Your task to perform on an android device: Open wifi settings Image 0: 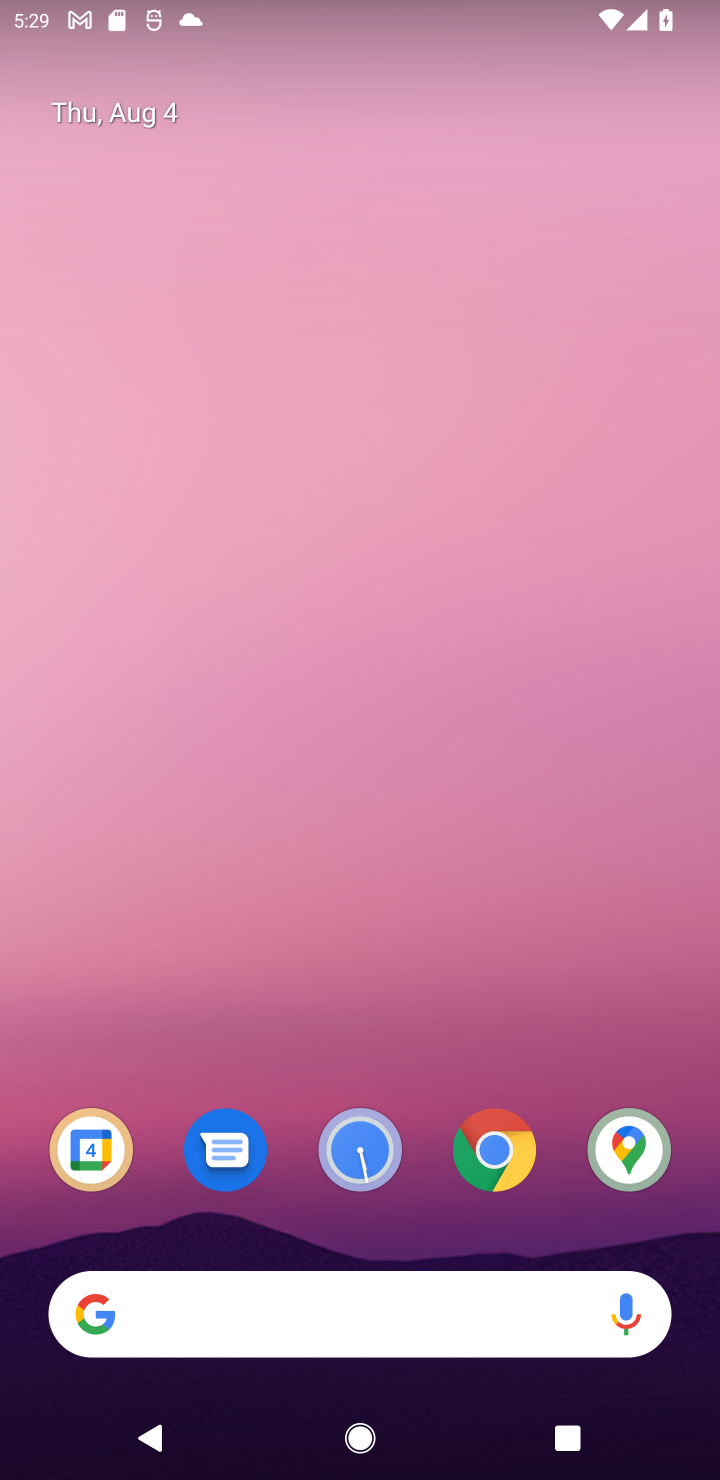
Step 0: drag from (329, 1135) to (283, 79)
Your task to perform on an android device: Open wifi settings Image 1: 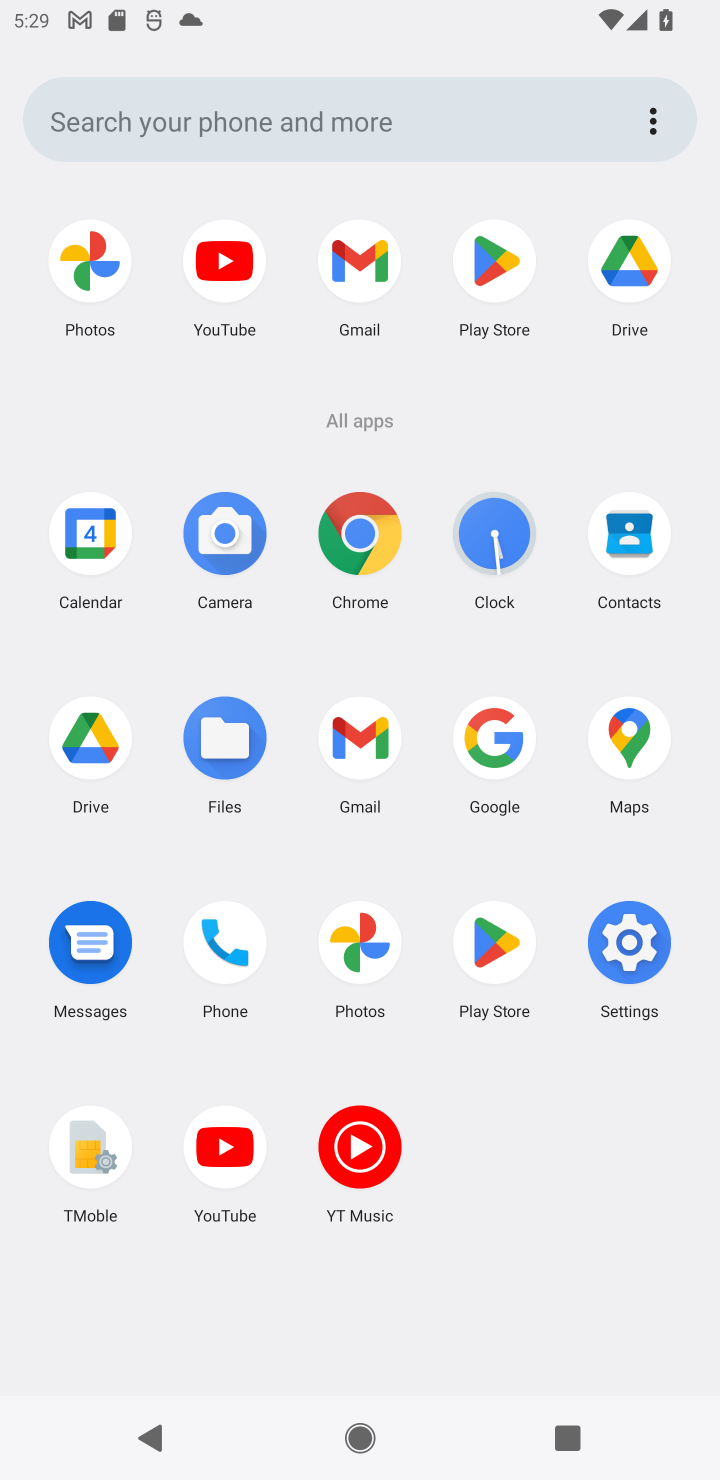
Step 1: click (618, 968)
Your task to perform on an android device: Open wifi settings Image 2: 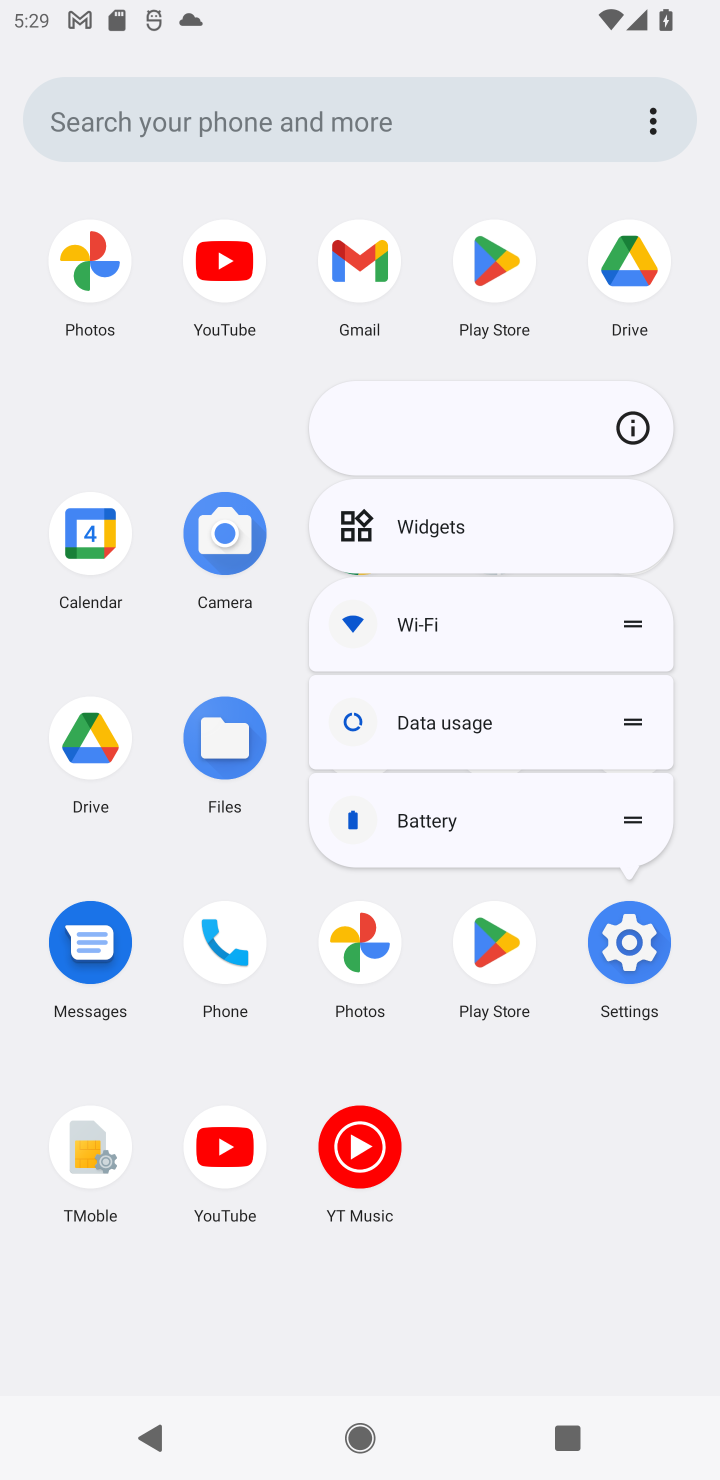
Step 2: click (629, 951)
Your task to perform on an android device: Open wifi settings Image 3: 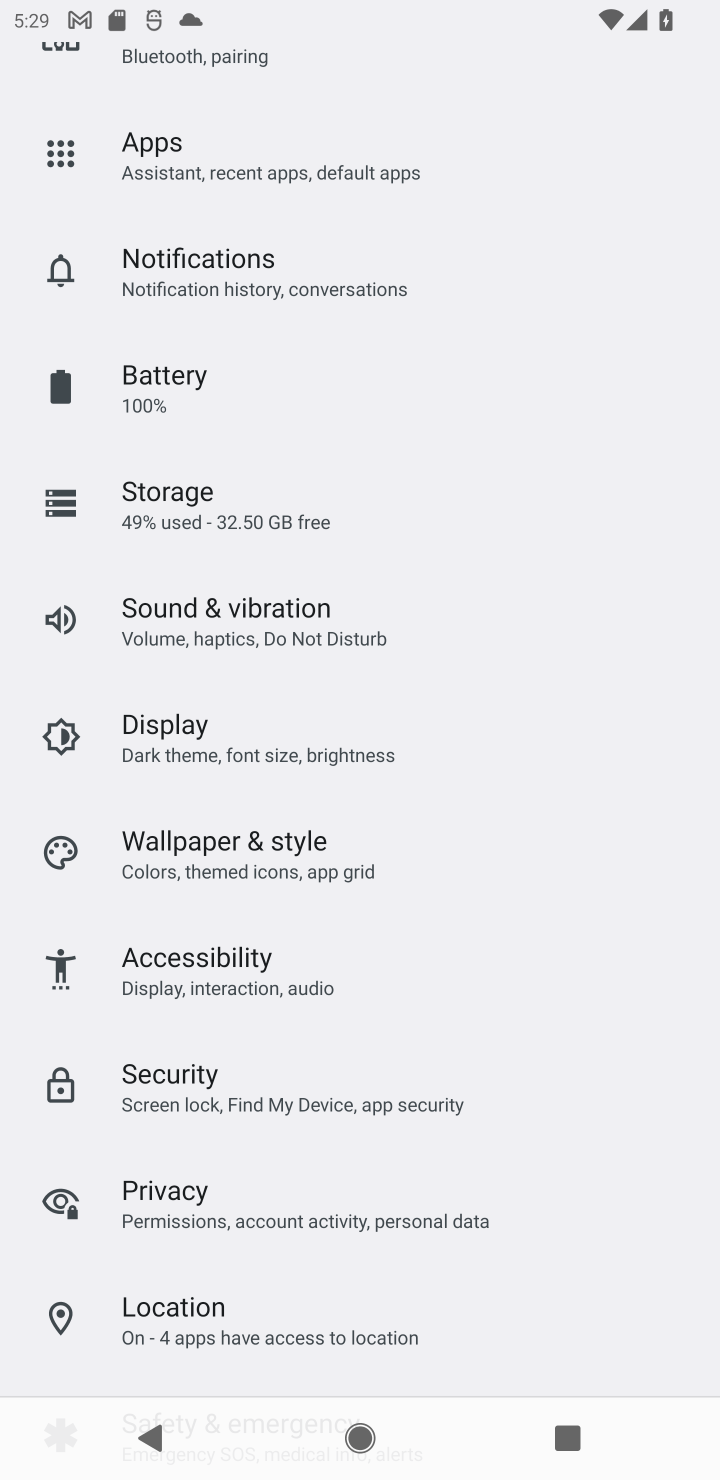
Step 3: drag from (310, 308) to (319, 1226)
Your task to perform on an android device: Open wifi settings Image 4: 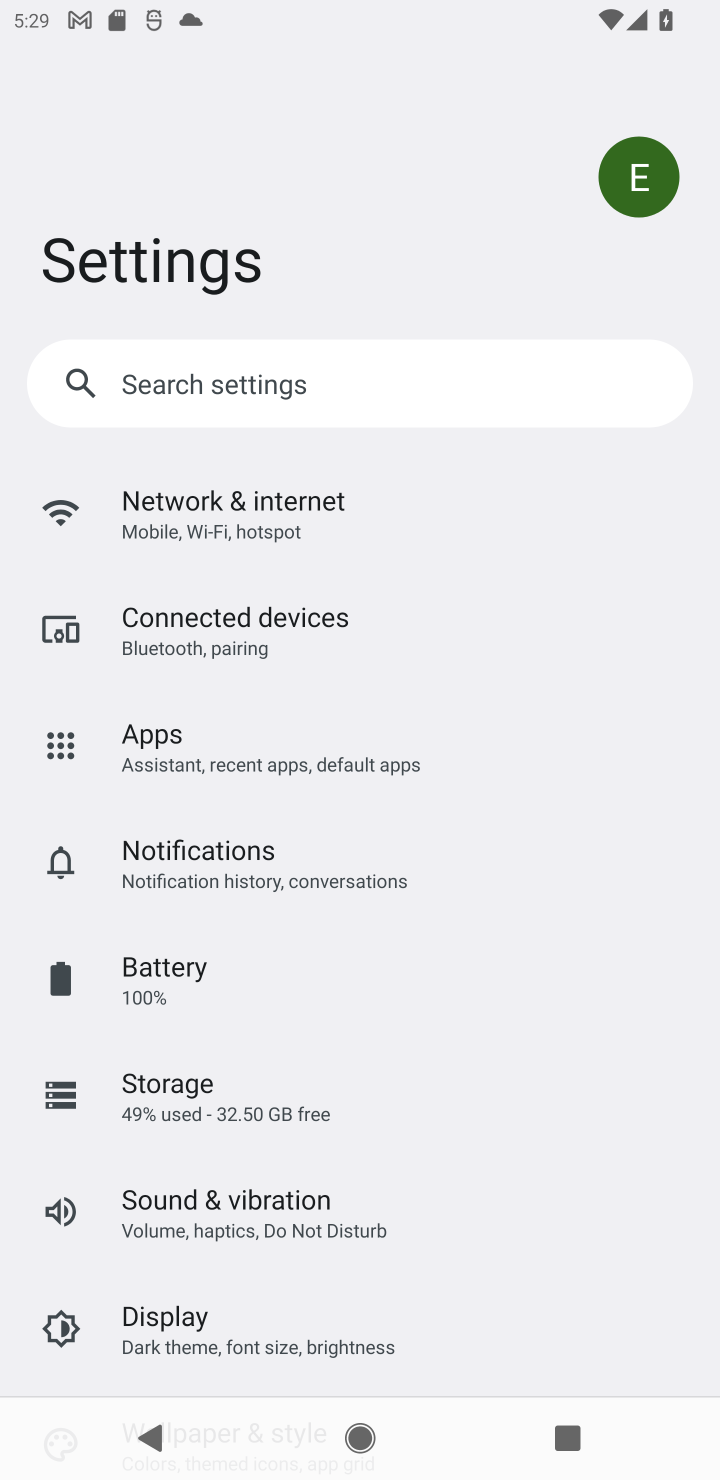
Step 4: click (291, 507)
Your task to perform on an android device: Open wifi settings Image 5: 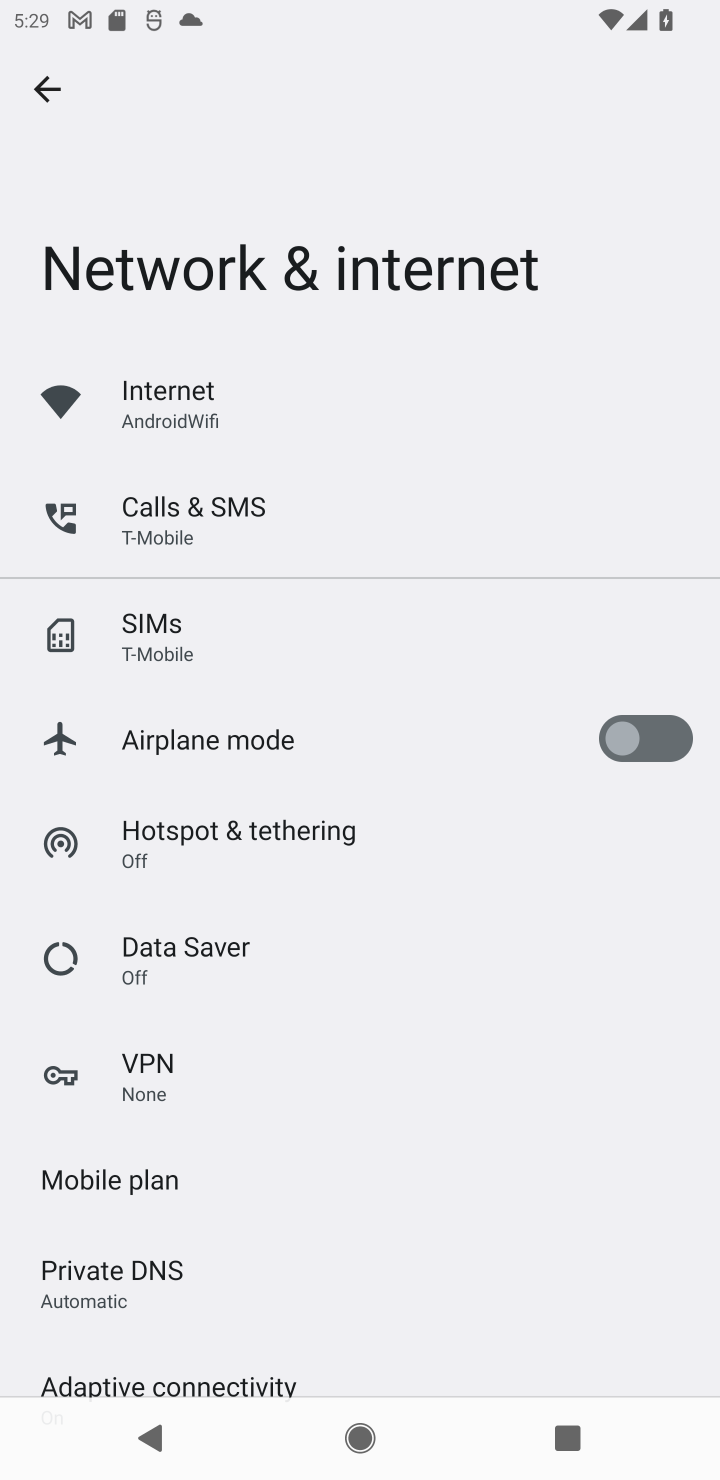
Step 5: click (221, 413)
Your task to perform on an android device: Open wifi settings Image 6: 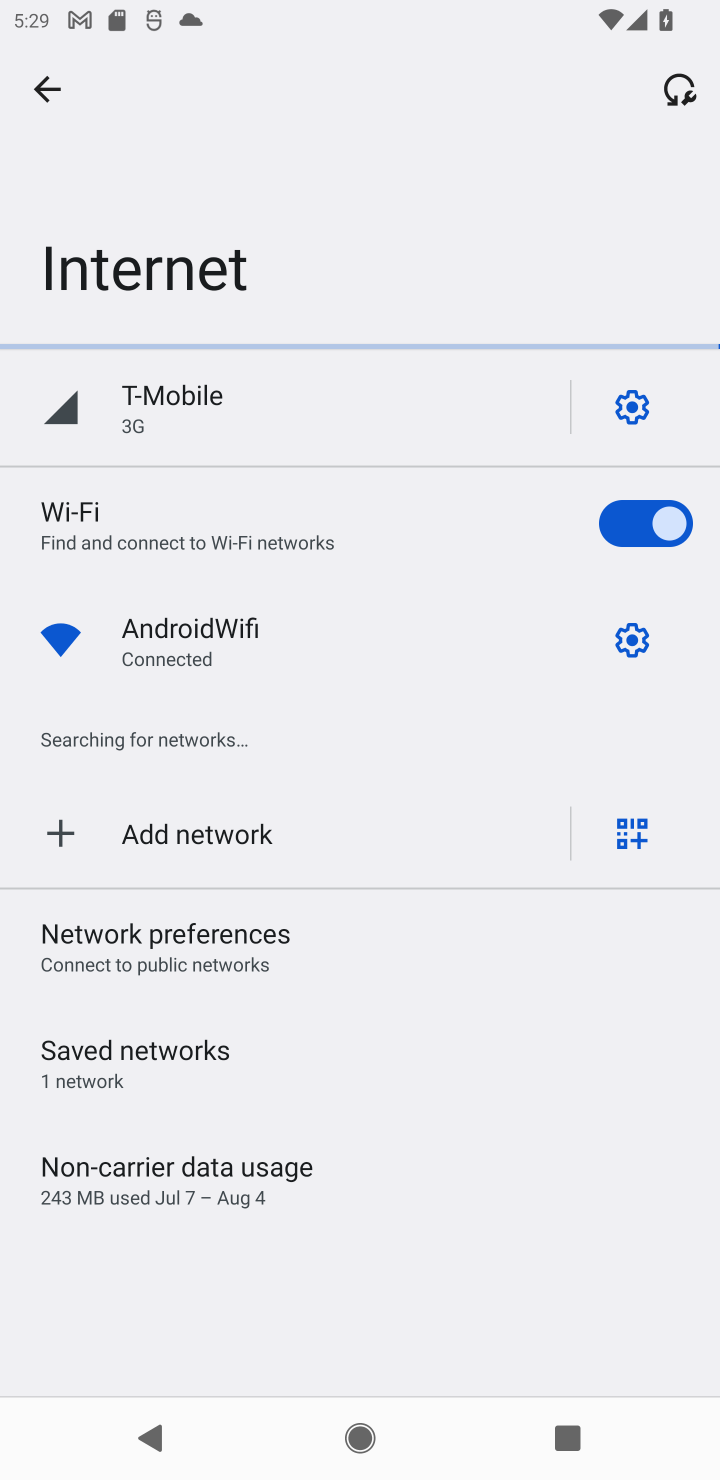
Step 6: task complete